Your task to perform on an android device: uninstall "Instagram" Image 0: 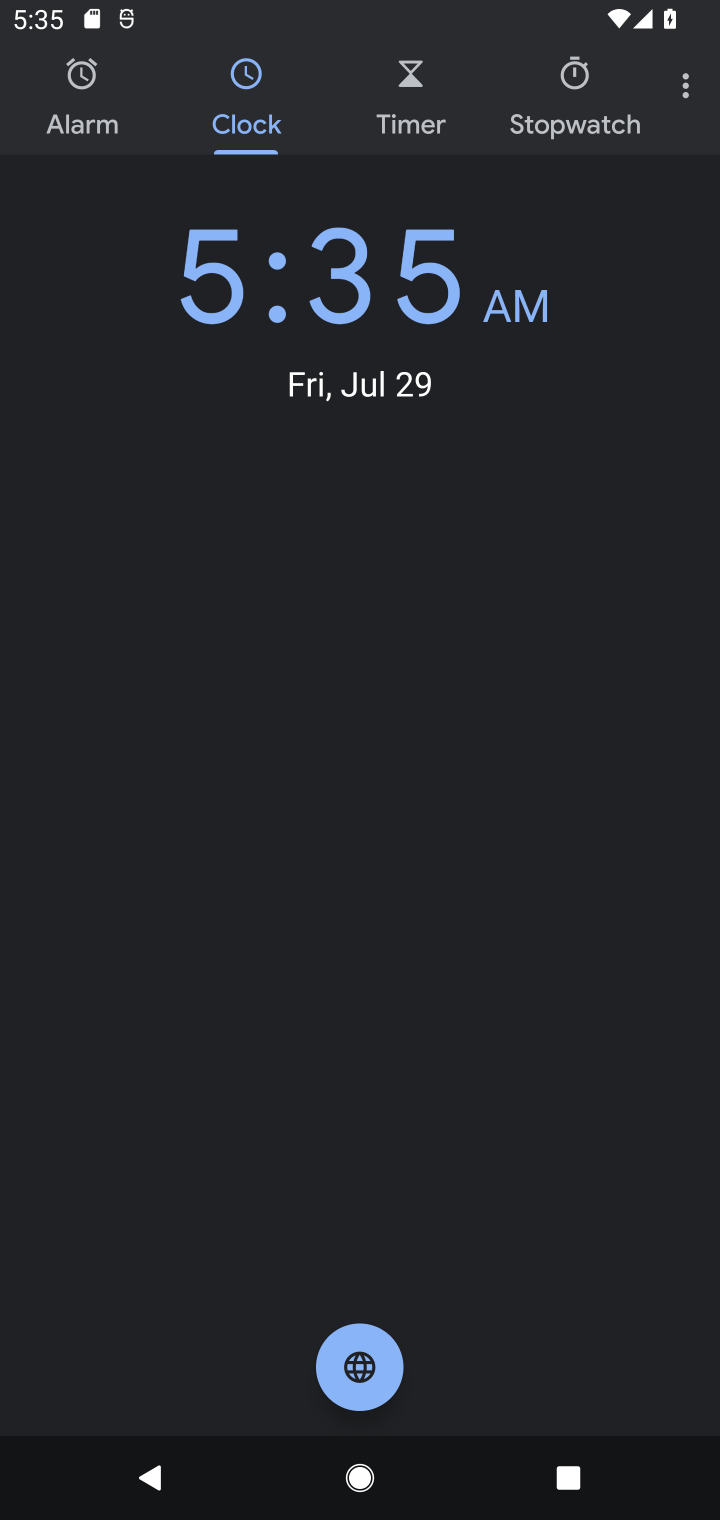
Step 0: press home button
Your task to perform on an android device: uninstall "Instagram" Image 1: 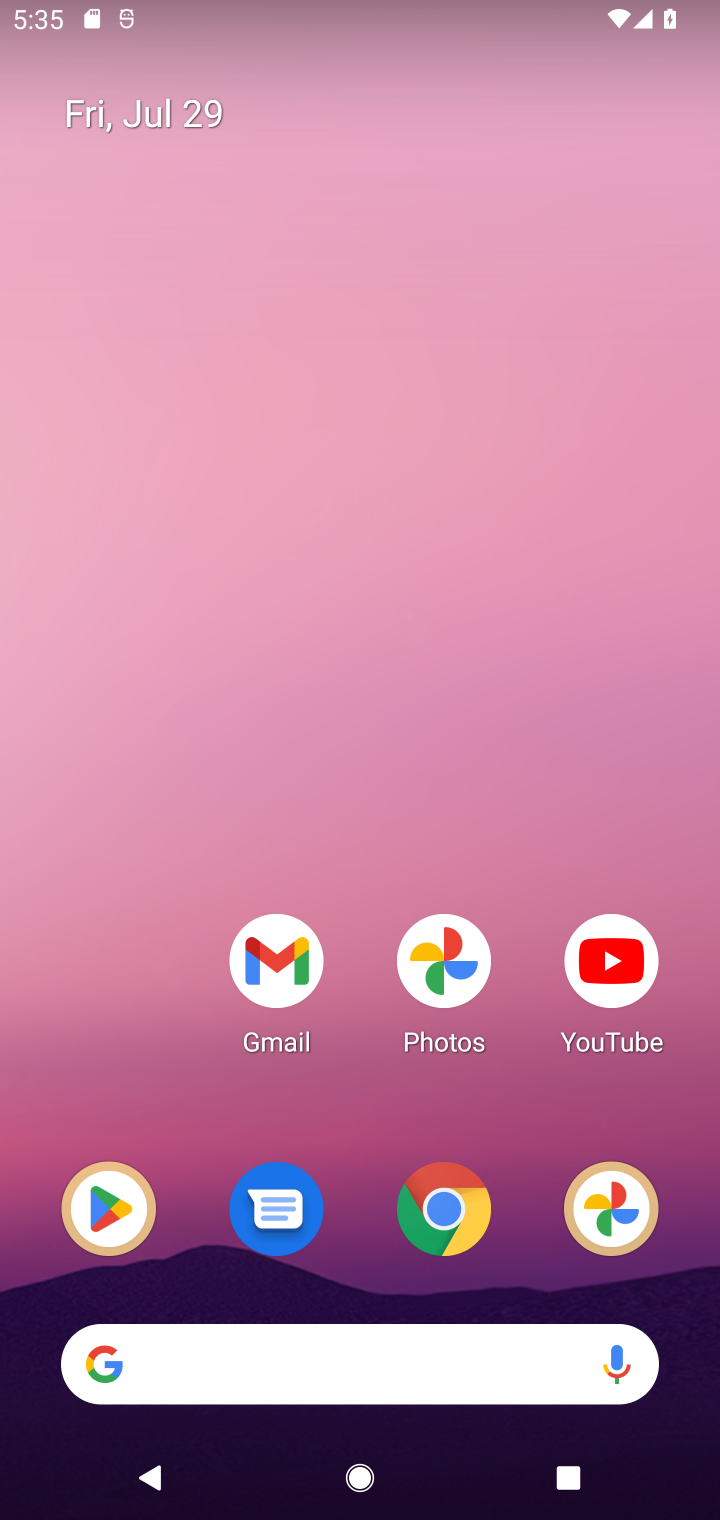
Step 1: task complete